Your task to perform on an android device: turn on the 24-hour format for clock Image 0: 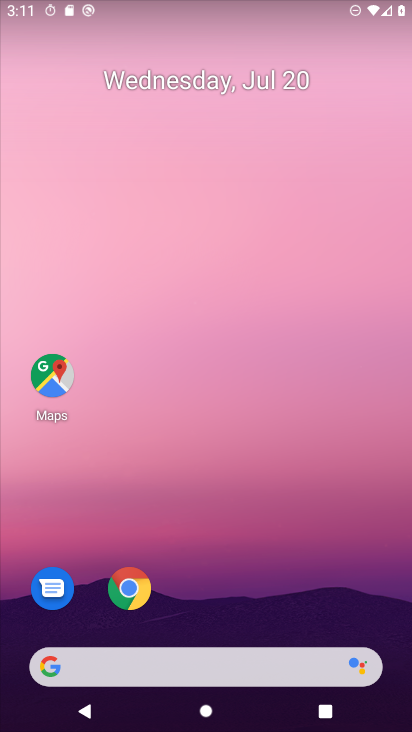
Step 0: drag from (205, 606) to (264, 6)
Your task to perform on an android device: turn on the 24-hour format for clock Image 1: 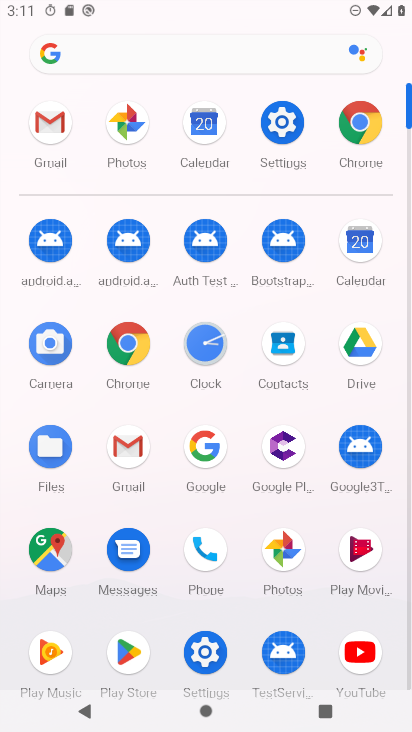
Step 1: click (200, 339)
Your task to perform on an android device: turn on the 24-hour format for clock Image 2: 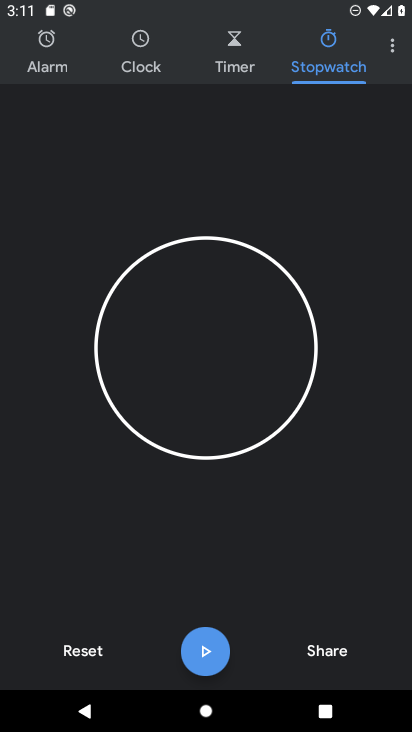
Step 2: click (398, 47)
Your task to perform on an android device: turn on the 24-hour format for clock Image 3: 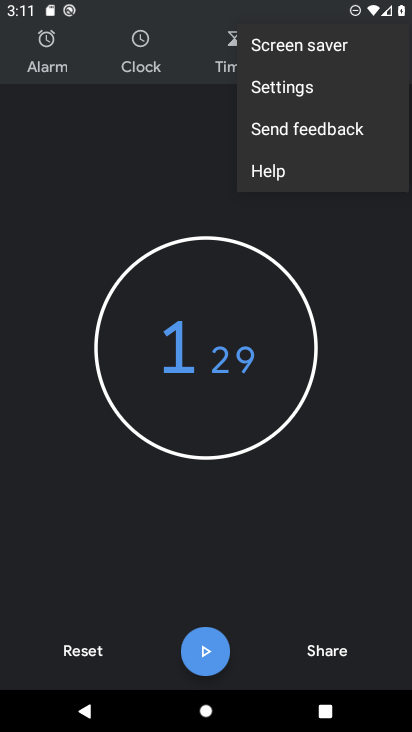
Step 3: click (316, 83)
Your task to perform on an android device: turn on the 24-hour format for clock Image 4: 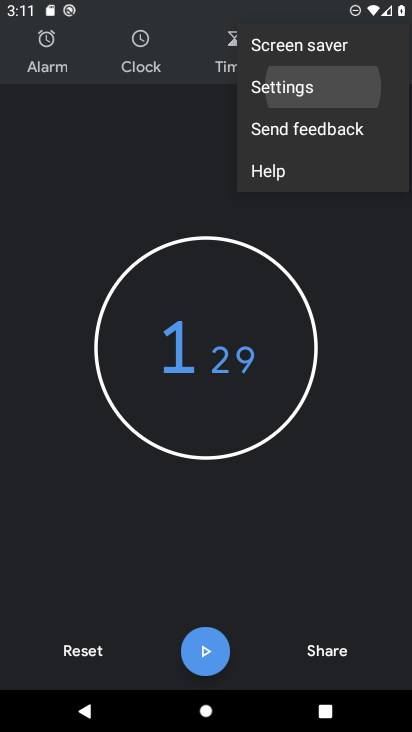
Step 4: click (316, 83)
Your task to perform on an android device: turn on the 24-hour format for clock Image 5: 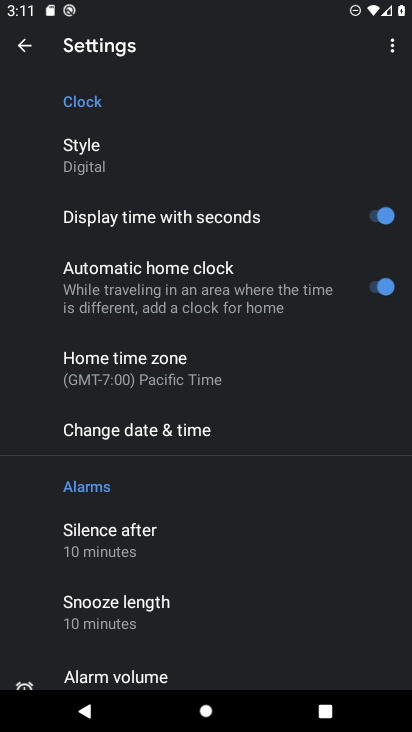
Step 5: click (124, 440)
Your task to perform on an android device: turn on the 24-hour format for clock Image 6: 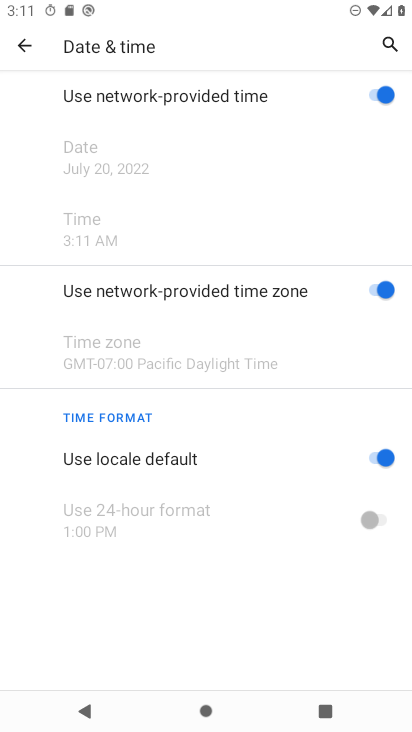
Step 6: click (372, 461)
Your task to perform on an android device: turn on the 24-hour format for clock Image 7: 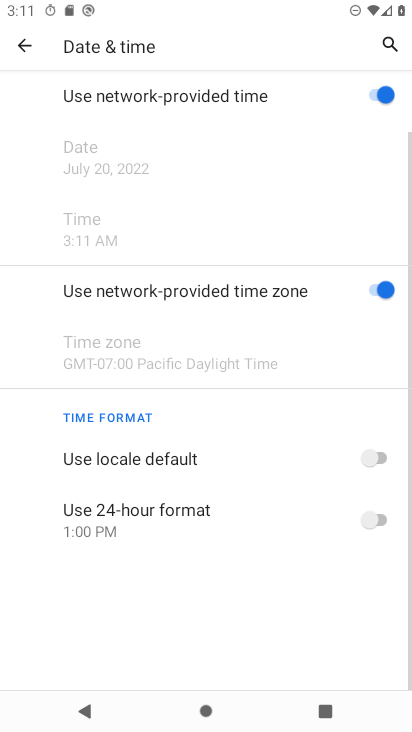
Step 7: click (382, 521)
Your task to perform on an android device: turn on the 24-hour format for clock Image 8: 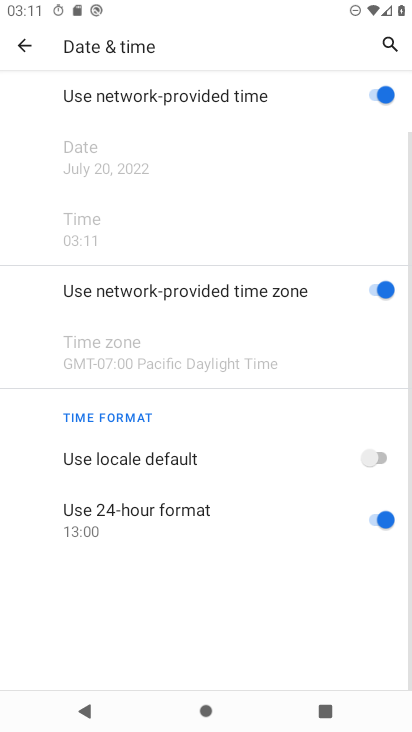
Step 8: task complete